Your task to perform on an android device: check out phone information Image 0: 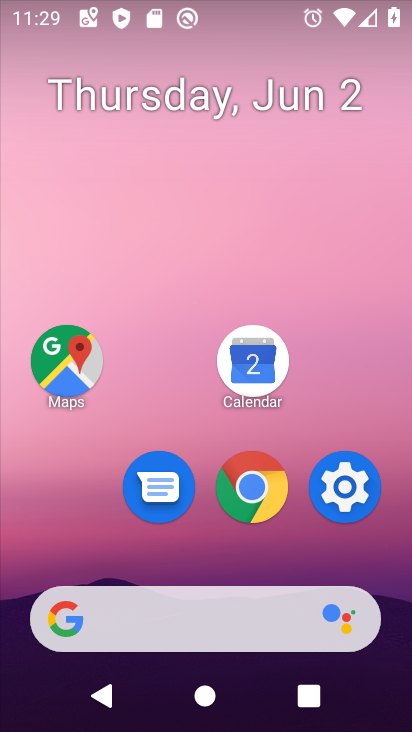
Step 0: drag from (236, 657) to (225, 190)
Your task to perform on an android device: check out phone information Image 1: 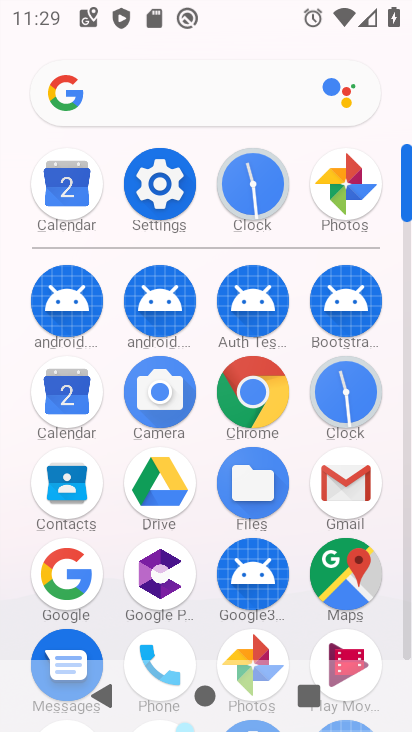
Step 1: click (141, 195)
Your task to perform on an android device: check out phone information Image 2: 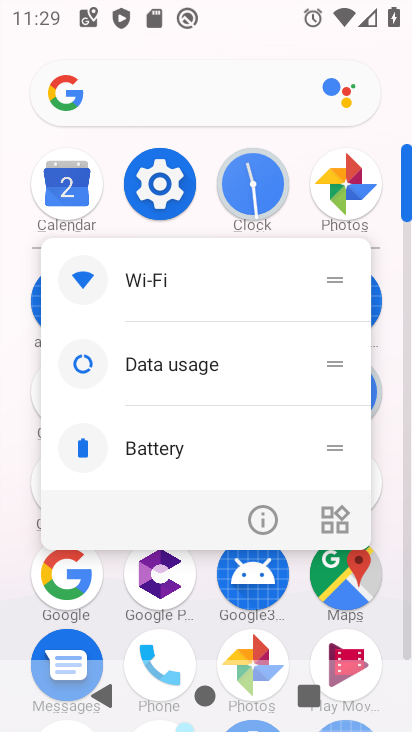
Step 2: click (141, 195)
Your task to perform on an android device: check out phone information Image 3: 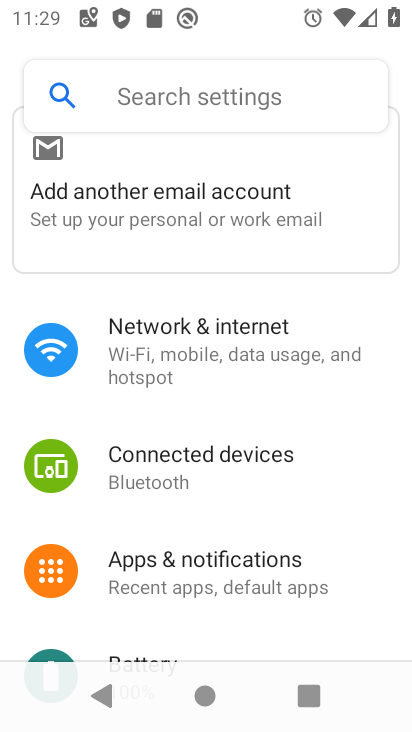
Step 3: click (174, 105)
Your task to perform on an android device: check out phone information Image 4: 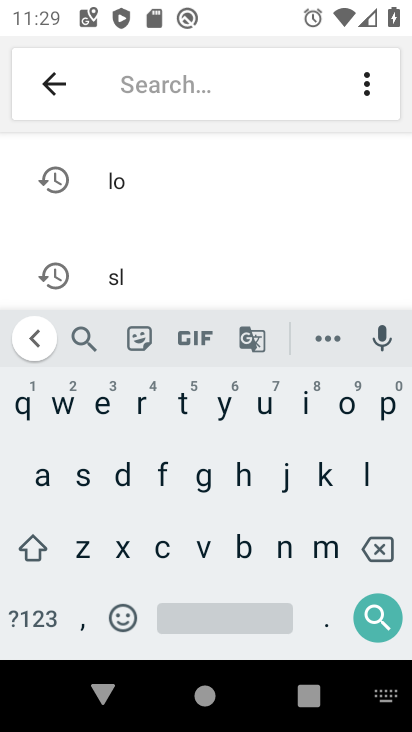
Step 4: click (34, 489)
Your task to perform on an android device: check out phone information Image 5: 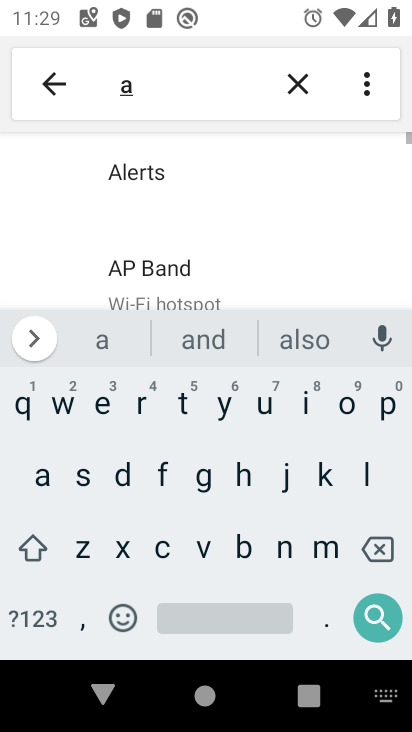
Step 5: click (241, 548)
Your task to perform on an android device: check out phone information Image 6: 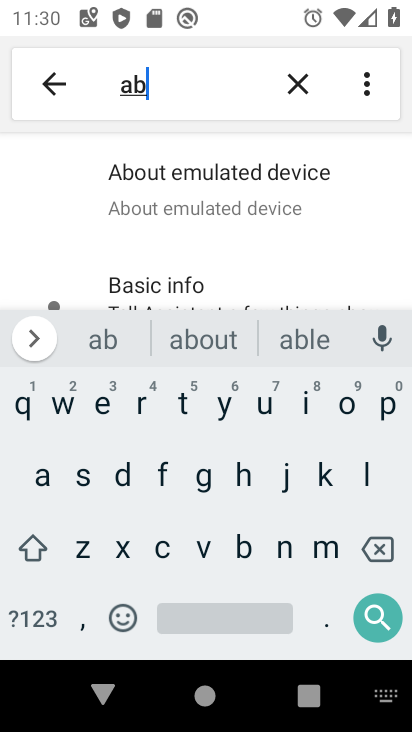
Step 6: click (157, 179)
Your task to perform on an android device: check out phone information Image 7: 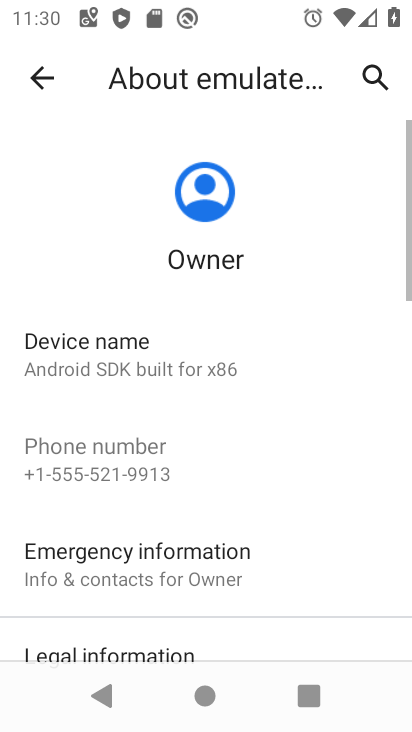
Step 7: task complete